Your task to perform on an android device: What is the news today? Image 0: 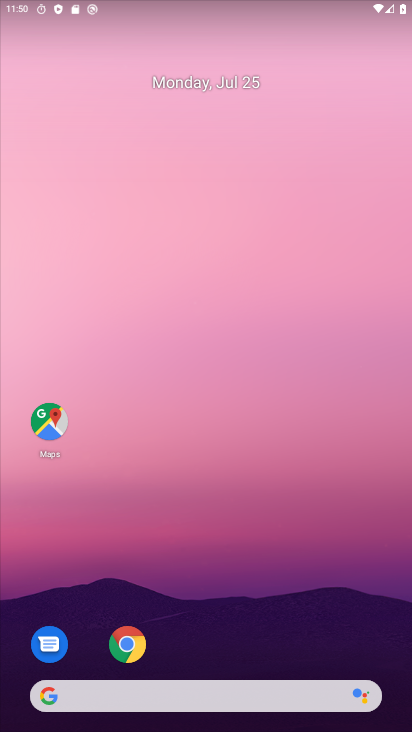
Step 0: drag from (275, 650) to (297, 7)
Your task to perform on an android device: What is the news today? Image 1: 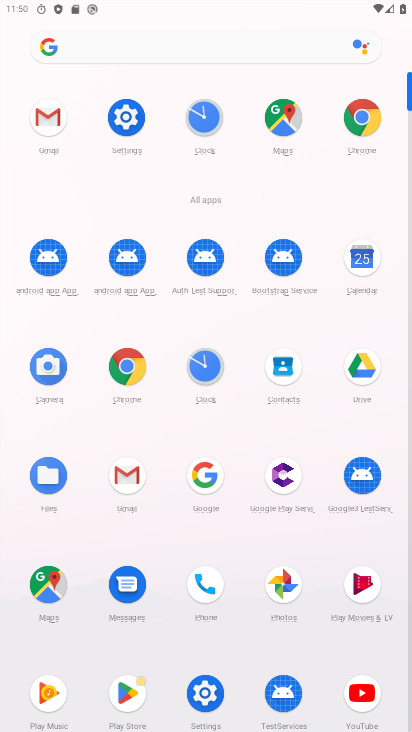
Step 1: click (362, 120)
Your task to perform on an android device: What is the news today? Image 2: 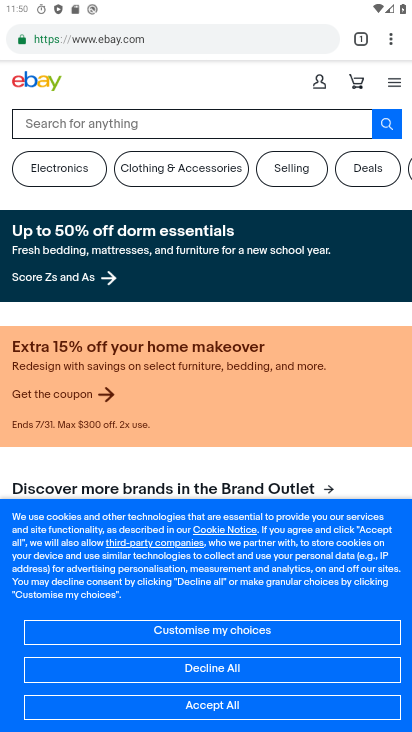
Step 2: task complete